Your task to perform on an android device: What's on my calendar tomorrow? Image 0: 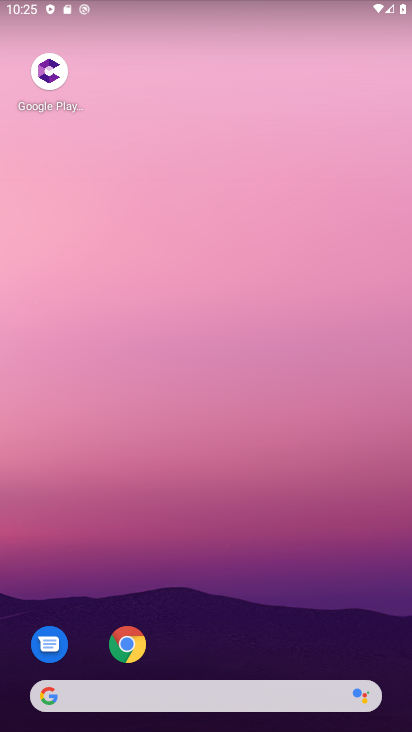
Step 0: drag from (243, 617) to (181, 43)
Your task to perform on an android device: What's on my calendar tomorrow? Image 1: 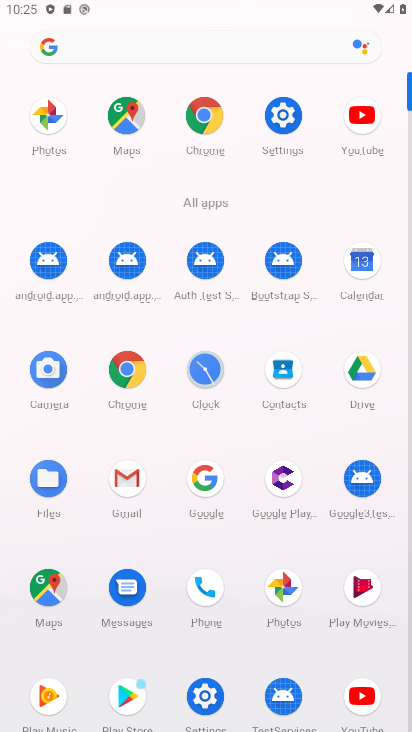
Step 1: click (363, 256)
Your task to perform on an android device: What's on my calendar tomorrow? Image 2: 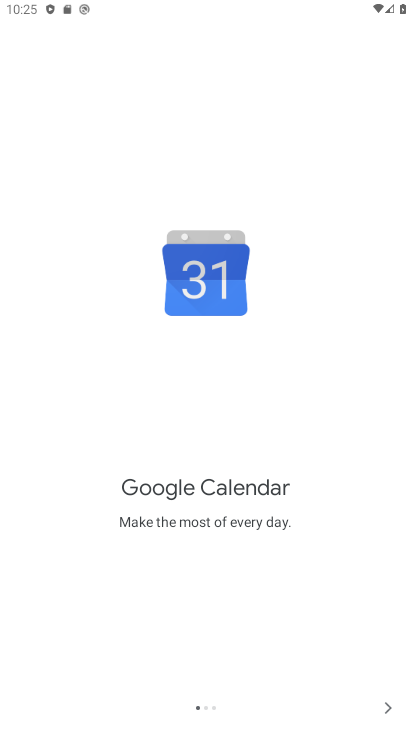
Step 2: click (386, 708)
Your task to perform on an android device: What's on my calendar tomorrow? Image 3: 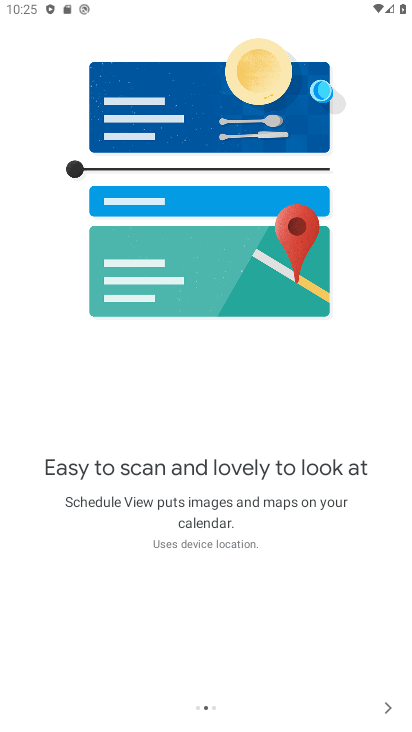
Step 3: click (386, 708)
Your task to perform on an android device: What's on my calendar tomorrow? Image 4: 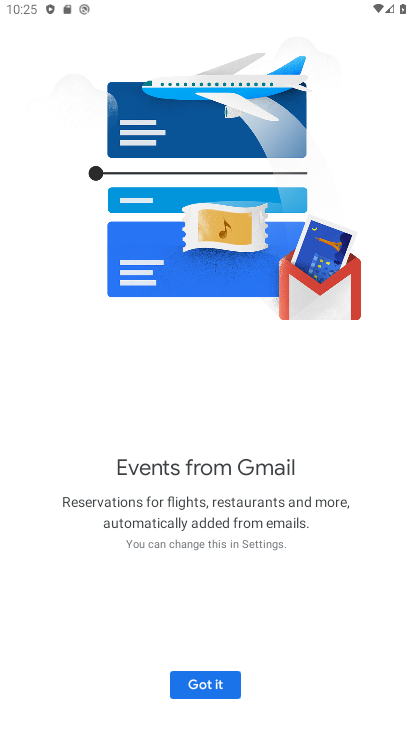
Step 4: click (199, 685)
Your task to perform on an android device: What's on my calendar tomorrow? Image 5: 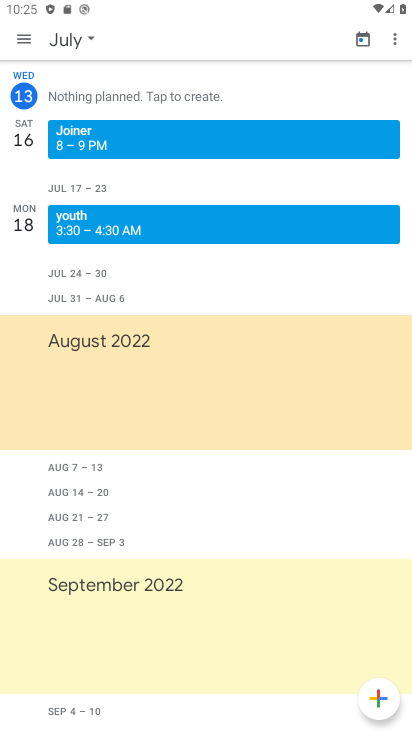
Step 5: click (24, 37)
Your task to perform on an android device: What's on my calendar tomorrow? Image 6: 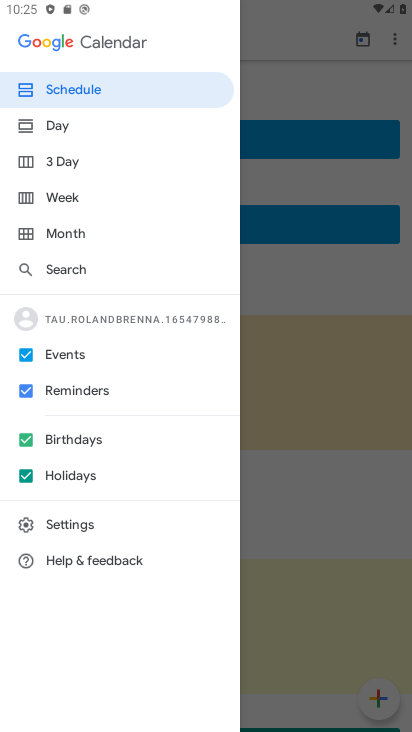
Step 6: click (63, 122)
Your task to perform on an android device: What's on my calendar tomorrow? Image 7: 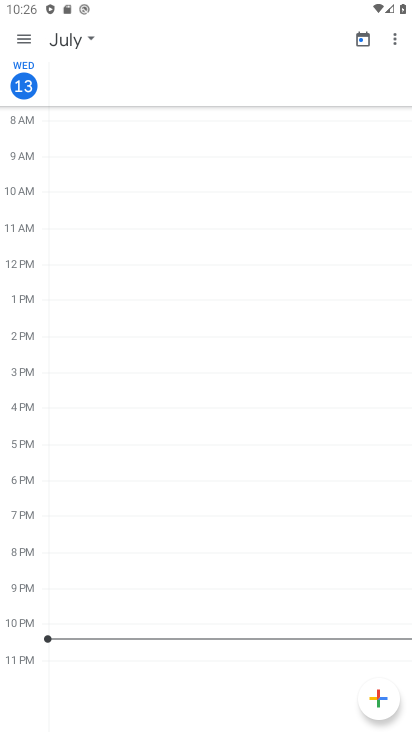
Step 7: click (88, 32)
Your task to perform on an android device: What's on my calendar tomorrow? Image 8: 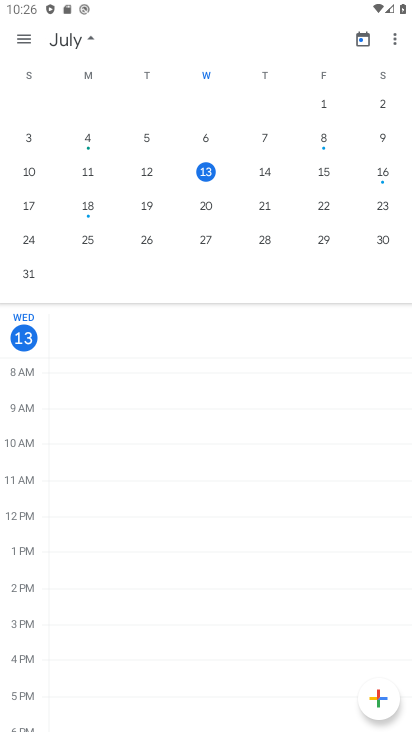
Step 8: click (267, 170)
Your task to perform on an android device: What's on my calendar tomorrow? Image 9: 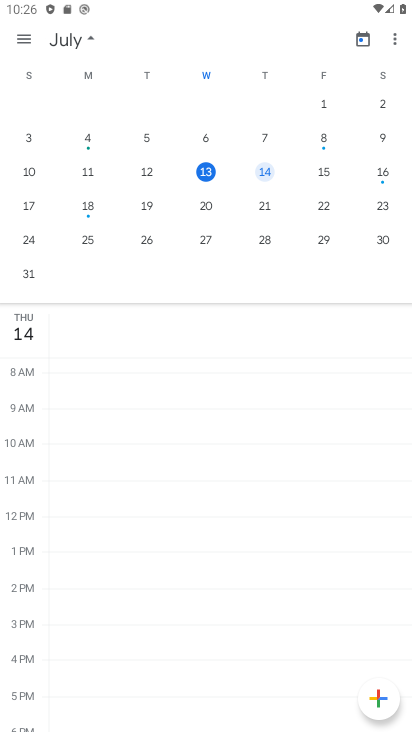
Step 9: click (267, 170)
Your task to perform on an android device: What's on my calendar tomorrow? Image 10: 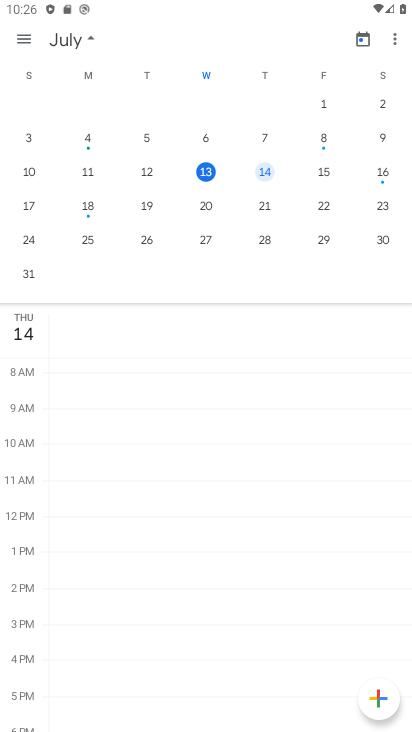
Step 10: click (267, 170)
Your task to perform on an android device: What's on my calendar tomorrow? Image 11: 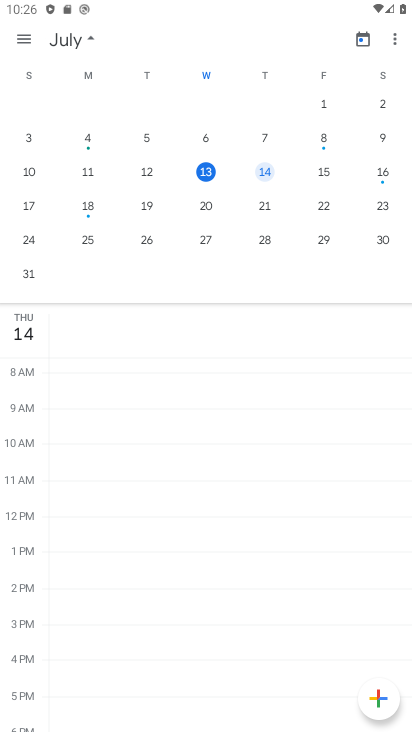
Step 11: click (267, 172)
Your task to perform on an android device: What's on my calendar tomorrow? Image 12: 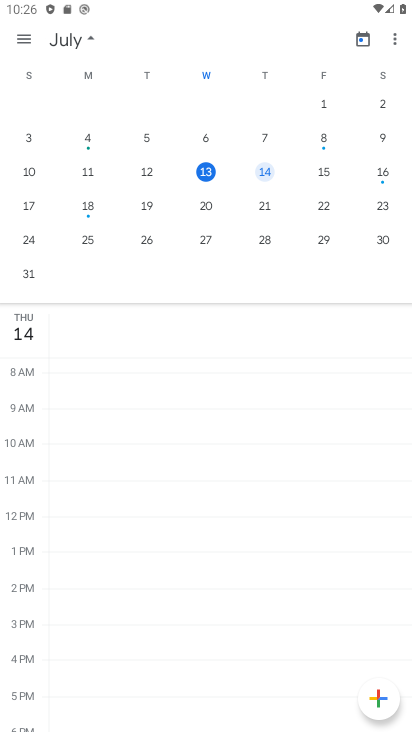
Step 12: click (267, 172)
Your task to perform on an android device: What's on my calendar tomorrow? Image 13: 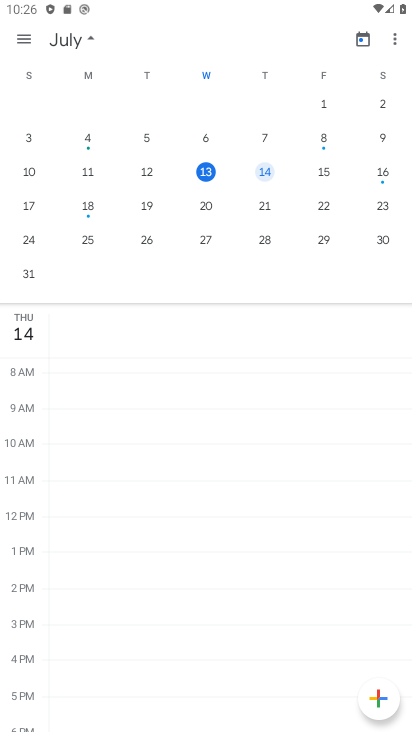
Step 13: click (267, 172)
Your task to perform on an android device: What's on my calendar tomorrow? Image 14: 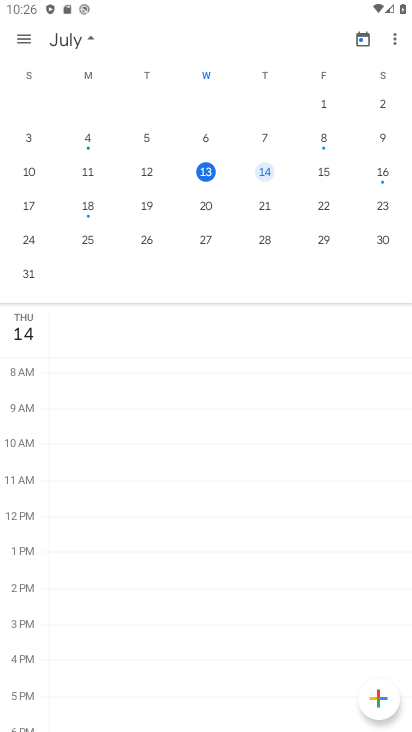
Step 14: click (266, 172)
Your task to perform on an android device: What's on my calendar tomorrow? Image 15: 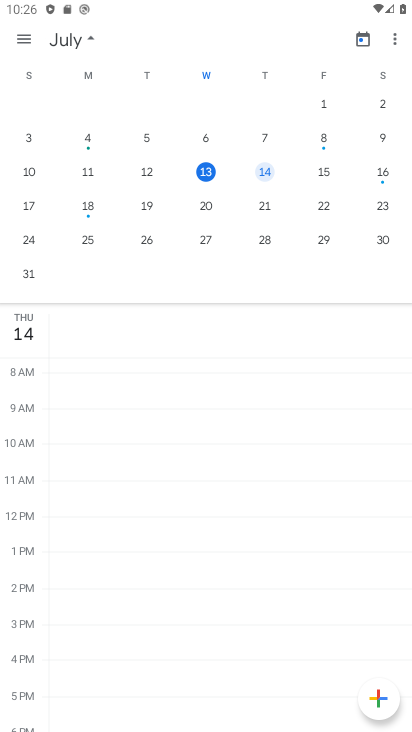
Step 15: click (266, 172)
Your task to perform on an android device: What's on my calendar tomorrow? Image 16: 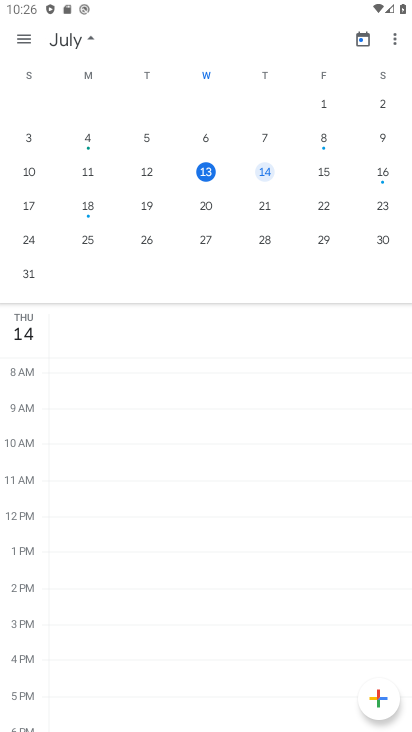
Step 16: click (266, 172)
Your task to perform on an android device: What's on my calendar tomorrow? Image 17: 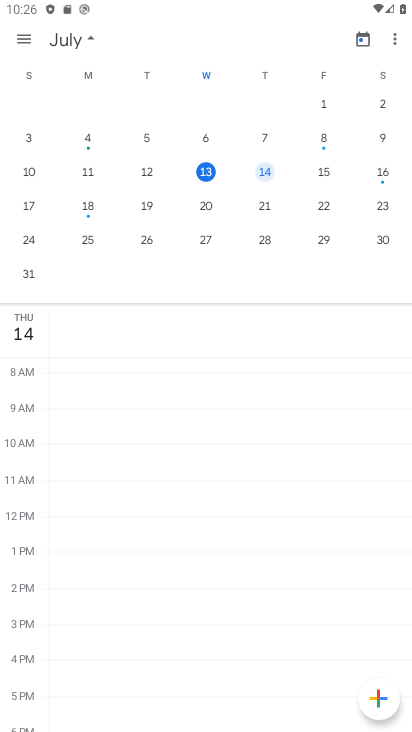
Step 17: click (265, 168)
Your task to perform on an android device: What's on my calendar tomorrow? Image 18: 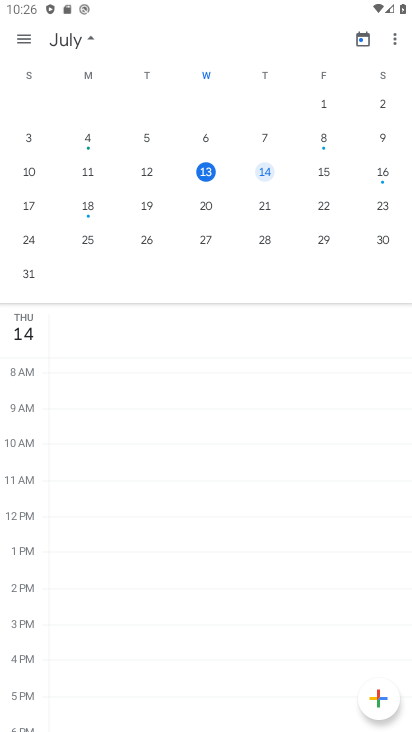
Step 18: click (265, 168)
Your task to perform on an android device: What's on my calendar tomorrow? Image 19: 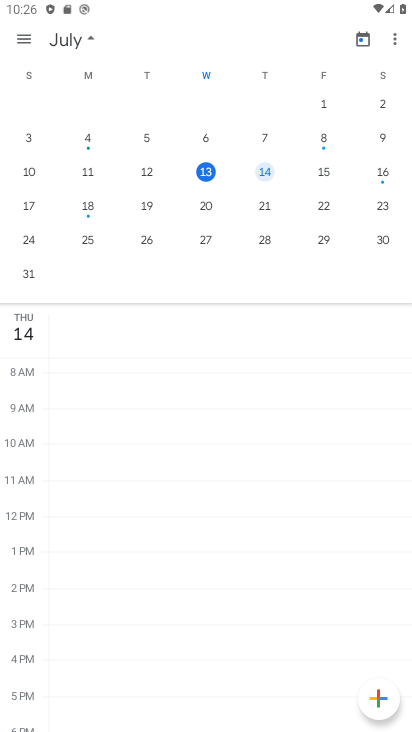
Step 19: task complete